Your task to perform on an android device: Go to Reddit.com Image 0: 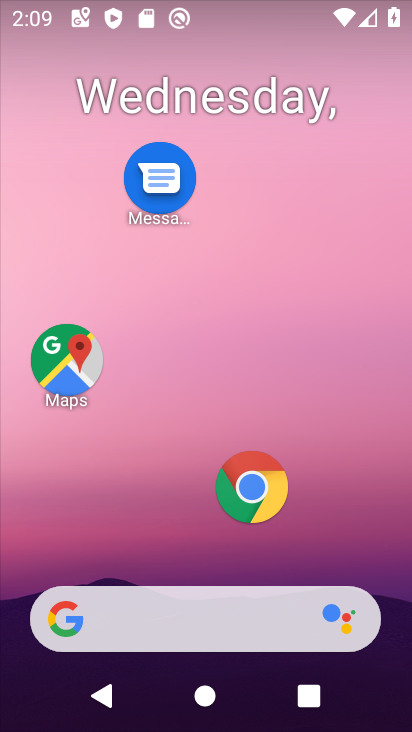
Step 0: click (209, 614)
Your task to perform on an android device: Go to Reddit.com Image 1: 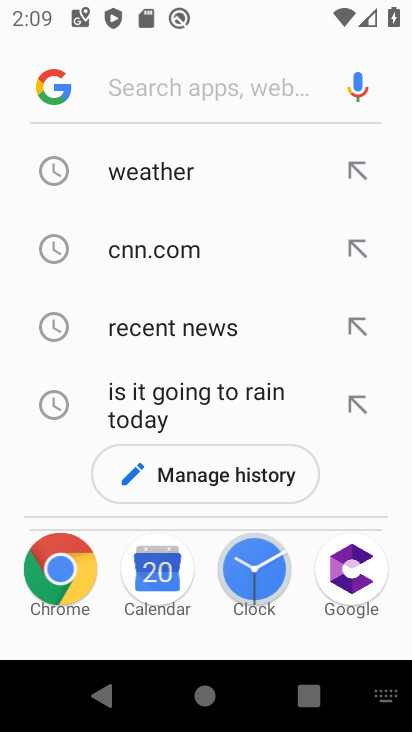
Step 1: type "Reddit.com"
Your task to perform on an android device: Go to Reddit.com Image 2: 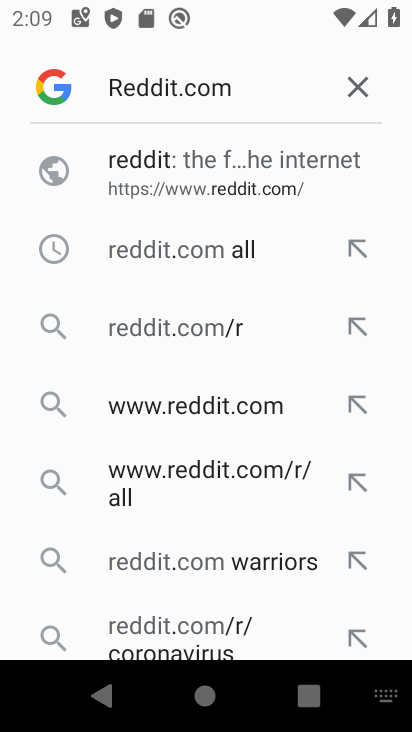
Step 2: drag from (218, 448) to (237, 255)
Your task to perform on an android device: Go to Reddit.com Image 3: 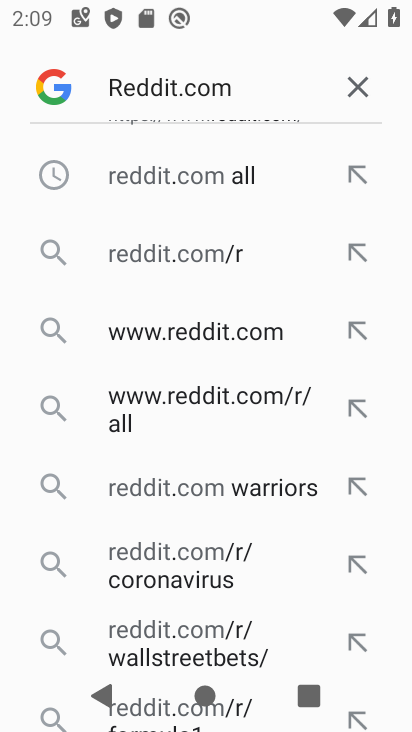
Step 3: click (231, 332)
Your task to perform on an android device: Go to Reddit.com Image 4: 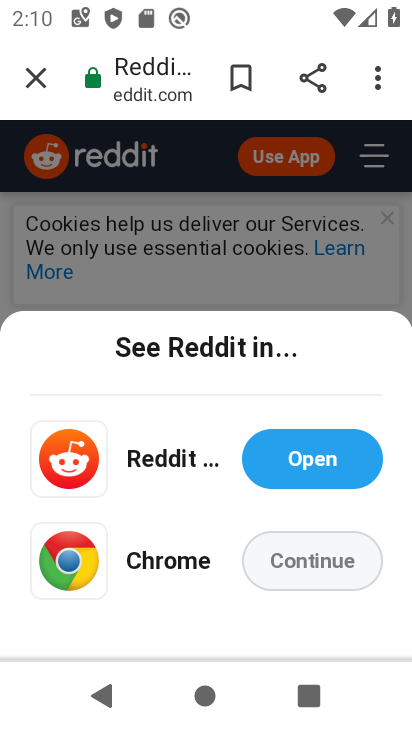
Step 4: click (313, 542)
Your task to perform on an android device: Go to Reddit.com Image 5: 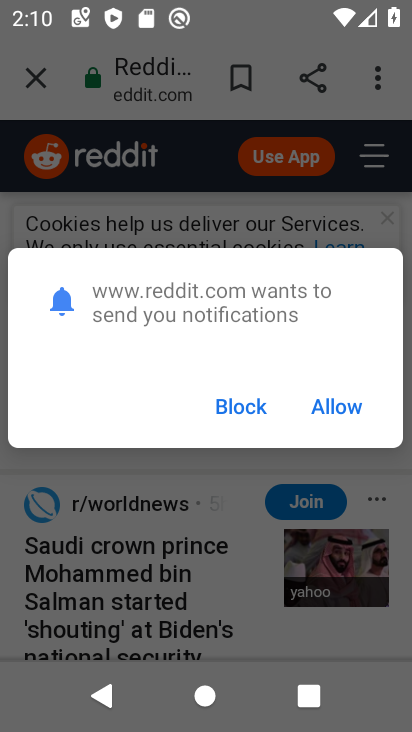
Step 5: click (336, 400)
Your task to perform on an android device: Go to Reddit.com Image 6: 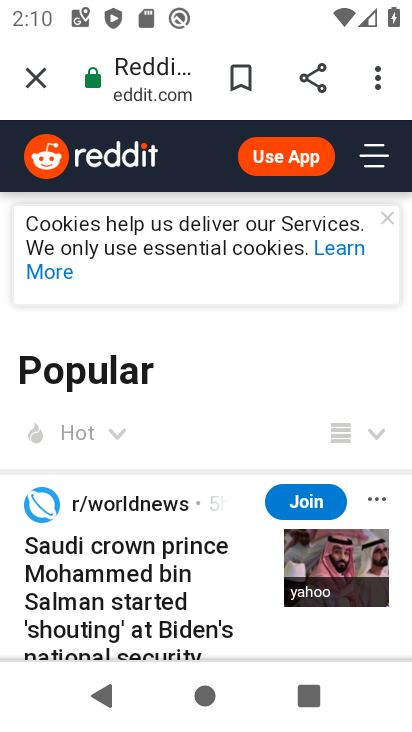
Step 6: task complete